Your task to perform on an android device: allow cookies in the chrome app Image 0: 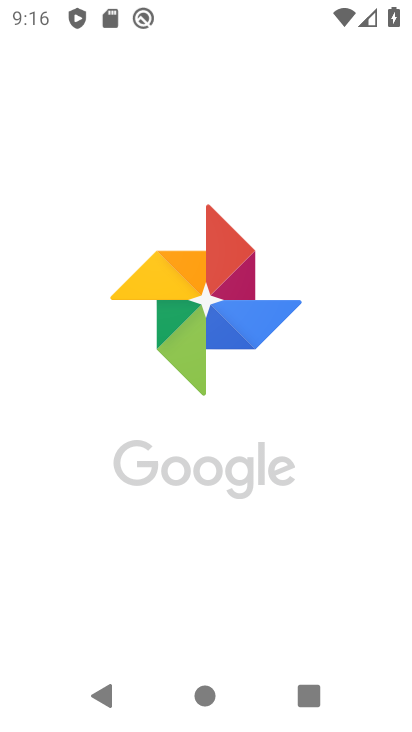
Step 0: drag from (397, 641) to (343, 1)
Your task to perform on an android device: allow cookies in the chrome app Image 1: 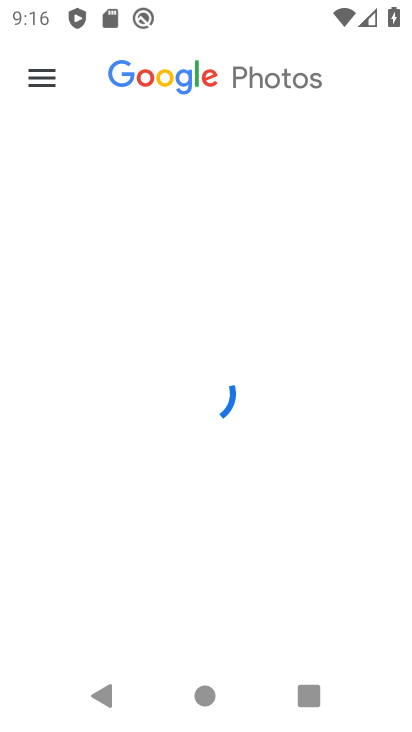
Step 1: press home button
Your task to perform on an android device: allow cookies in the chrome app Image 2: 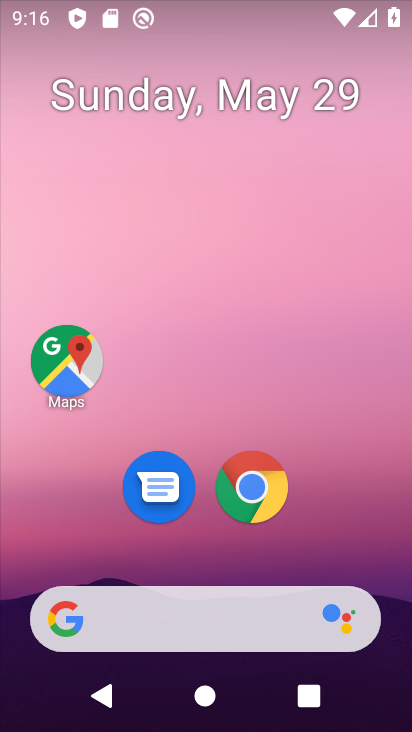
Step 2: click (242, 486)
Your task to perform on an android device: allow cookies in the chrome app Image 3: 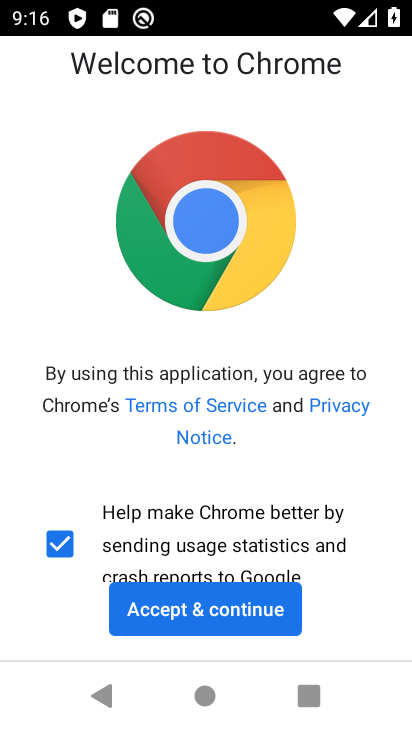
Step 3: click (178, 615)
Your task to perform on an android device: allow cookies in the chrome app Image 4: 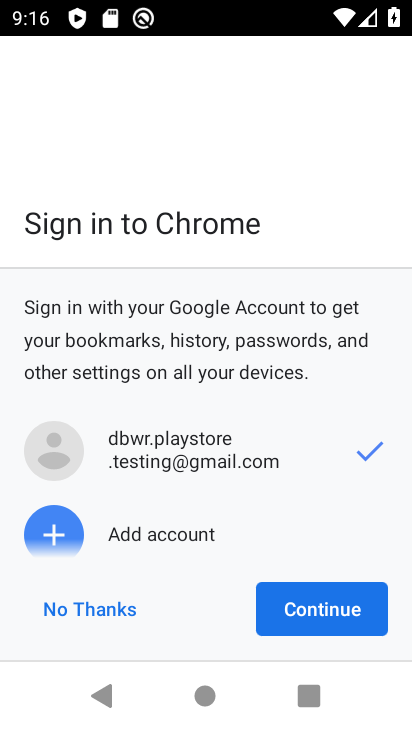
Step 4: click (321, 616)
Your task to perform on an android device: allow cookies in the chrome app Image 5: 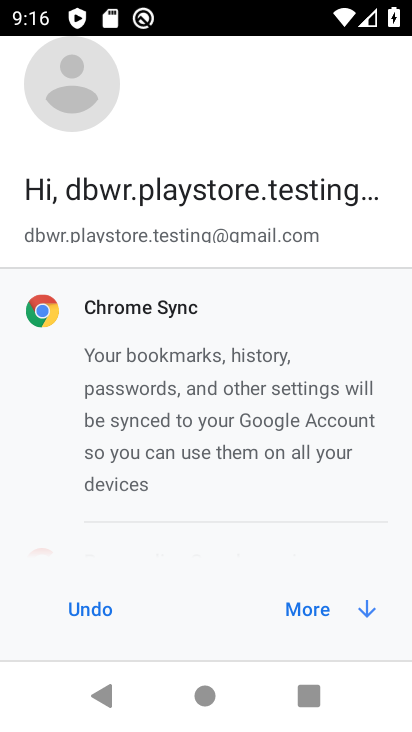
Step 5: click (321, 616)
Your task to perform on an android device: allow cookies in the chrome app Image 6: 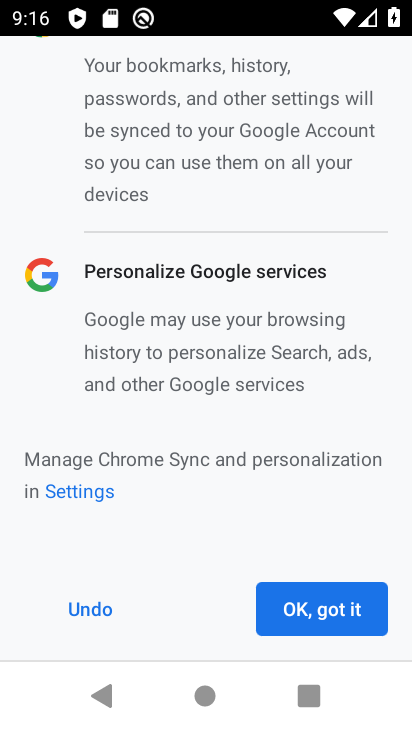
Step 6: click (321, 610)
Your task to perform on an android device: allow cookies in the chrome app Image 7: 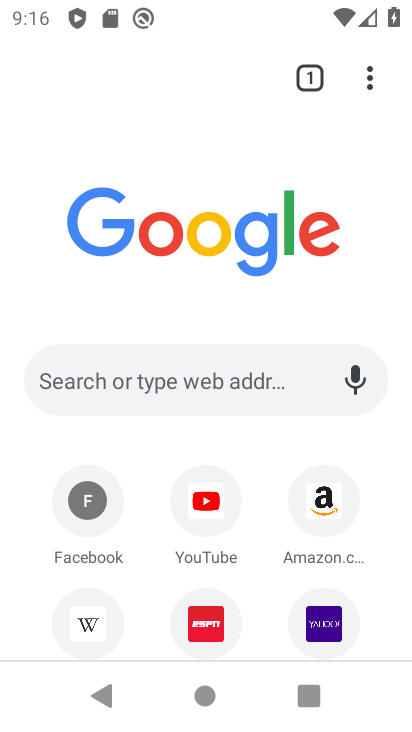
Step 7: click (367, 73)
Your task to perform on an android device: allow cookies in the chrome app Image 8: 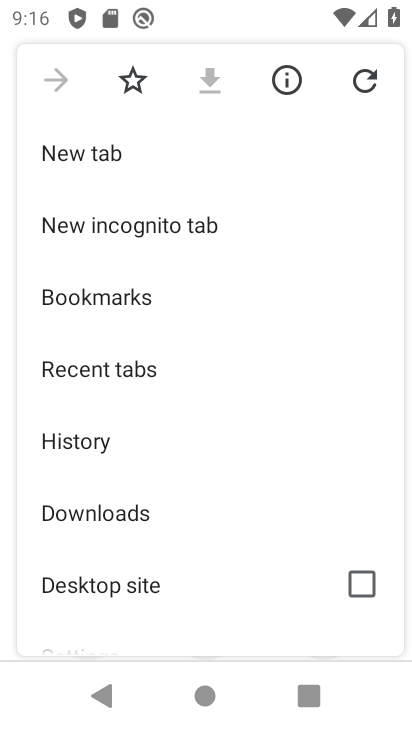
Step 8: drag from (214, 354) to (220, 206)
Your task to perform on an android device: allow cookies in the chrome app Image 9: 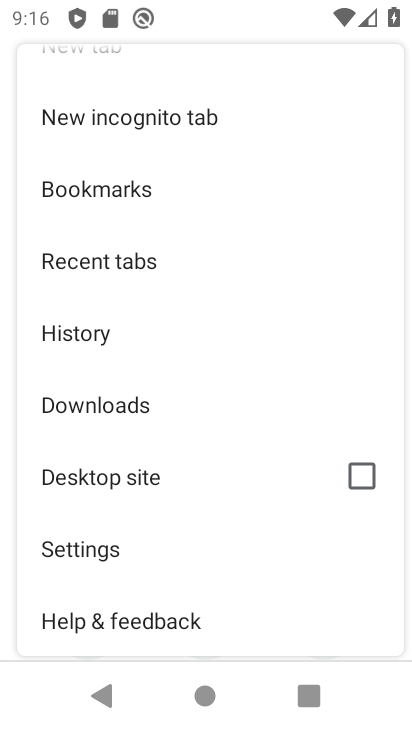
Step 9: click (89, 552)
Your task to perform on an android device: allow cookies in the chrome app Image 10: 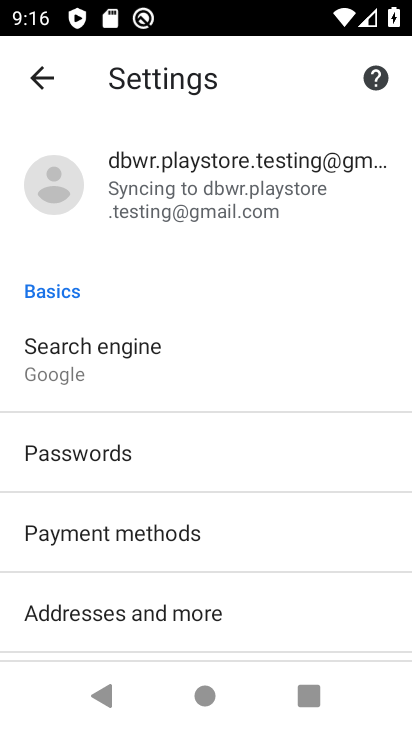
Step 10: drag from (252, 633) to (262, 201)
Your task to perform on an android device: allow cookies in the chrome app Image 11: 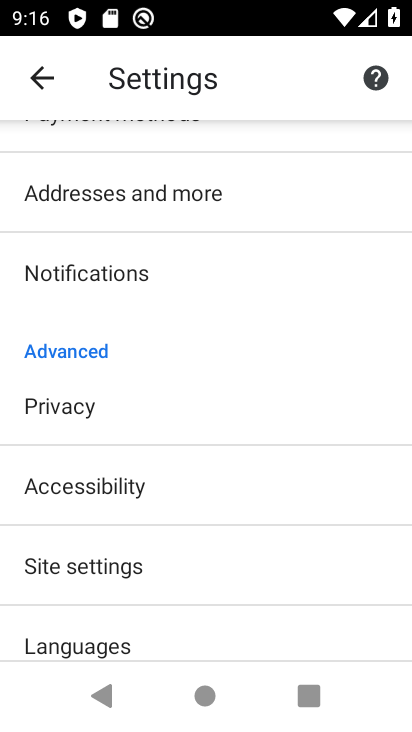
Step 11: drag from (207, 625) to (217, 277)
Your task to perform on an android device: allow cookies in the chrome app Image 12: 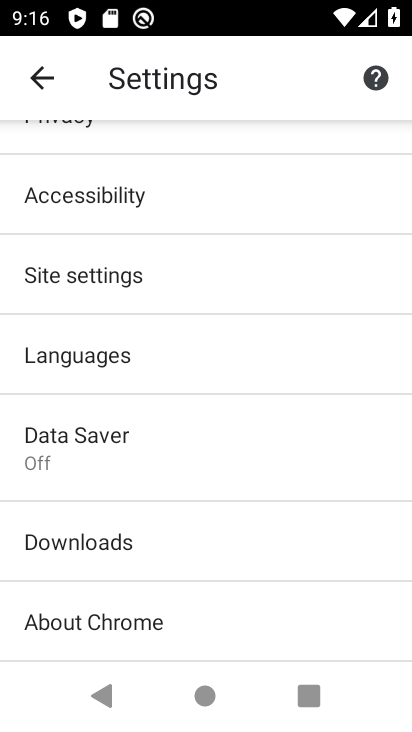
Step 12: click (83, 273)
Your task to perform on an android device: allow cookies in the chrome app Image 13: 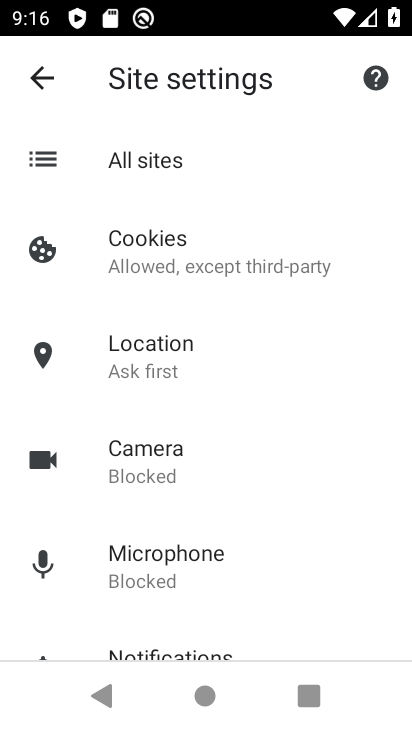
Step 13: click (115, 252)
Your task to perform on an android device: allow cookies in the chrome app Image 14: 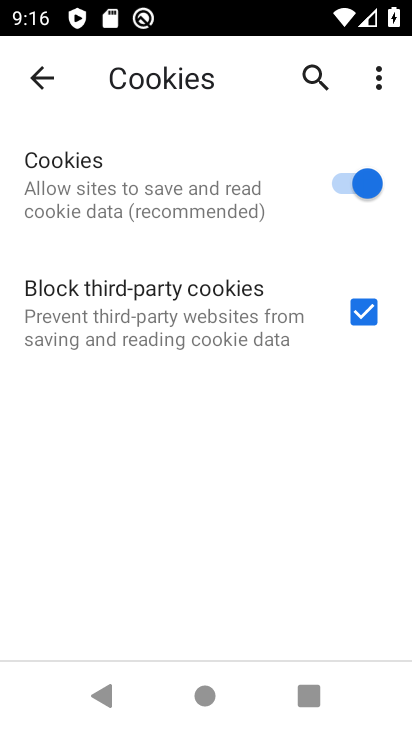
Step 14: task complete